Your task to perform on an android device: delete browsing data in the chrome app Image 0: 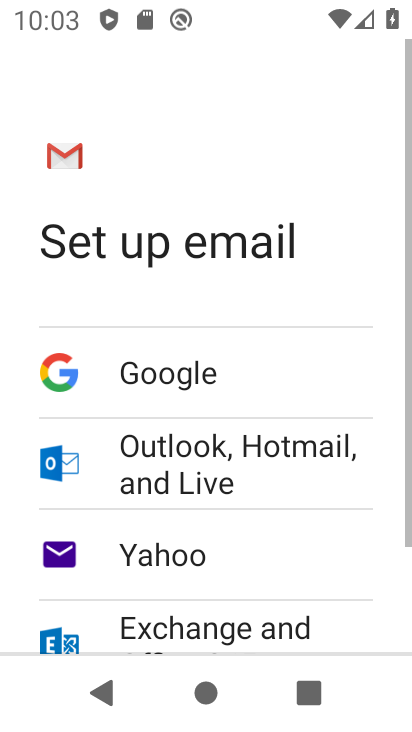
Step 0: press home button
Your task to perform on an android device: delete browsing data in the chrome app Image 1: 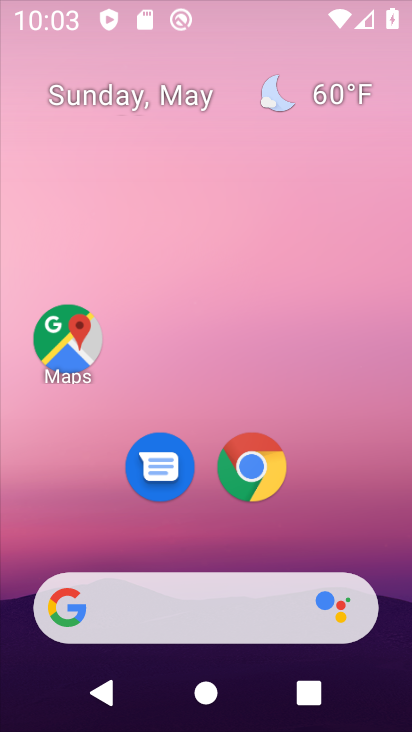
Step 1: drag from (348, 511) to (341, 101)
Your task to perform on an android device: delete browsing data in the chrome app Image 2: 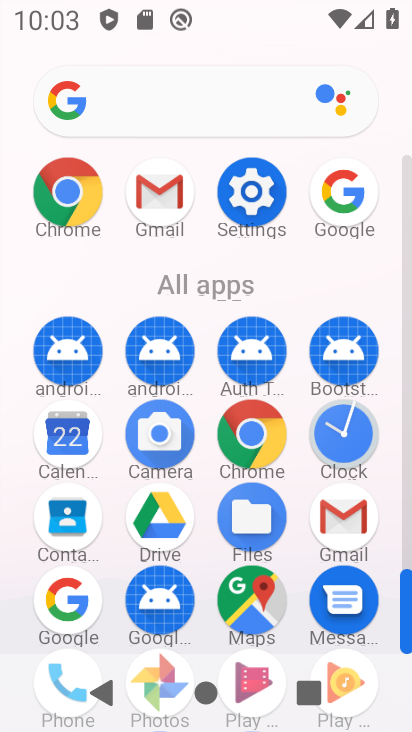
Step 2: click (264, 456)
Your task to perform on an android device: delete browsing data in the chrome app Image 3: 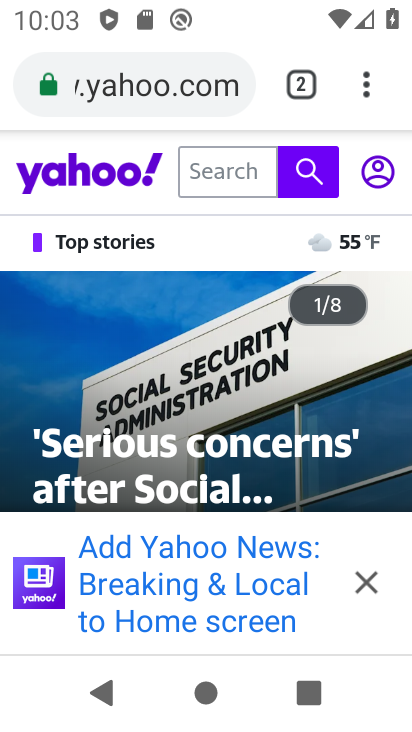
Step 3: task complete